Your task to perform on an android device: Go to location settings Image 0: 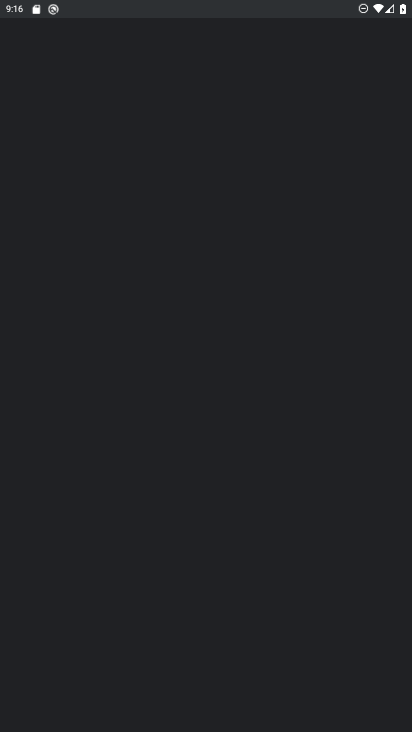
Step 0: click (180, 694)
Your task to perform on an android device: Go to location settings Image 1: 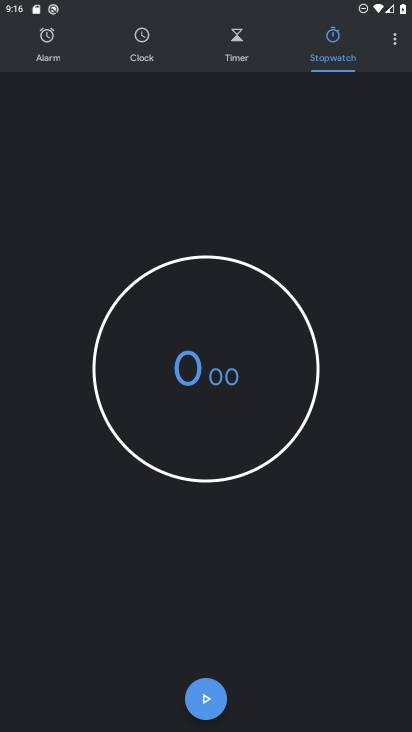
Step 1: press home button
Your task to perform on an android device: Go to location settings Image 2: 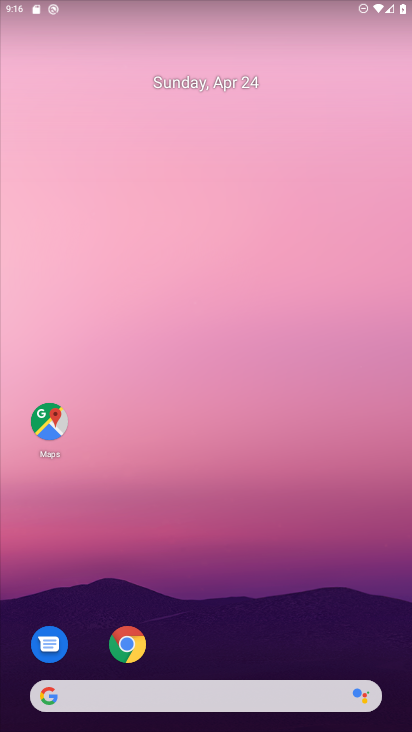
Step 2: drag from (218, 658) to (228, 65)
Your task to perform on an android device: Go to location settings Image 3: 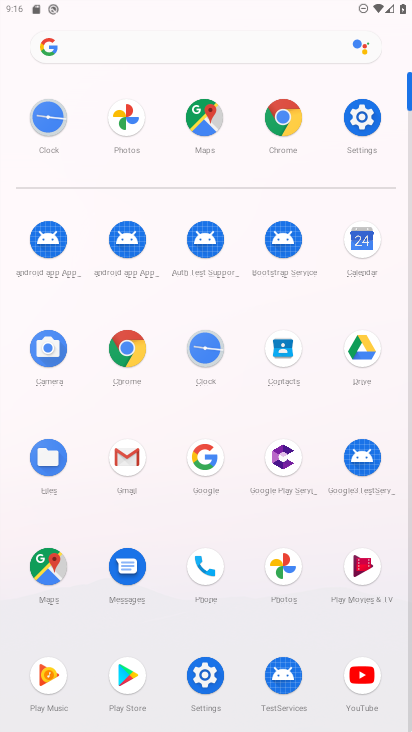
Step 3: click (354, 114)
Your task to perform on an android device: Go to location settings Image 4: 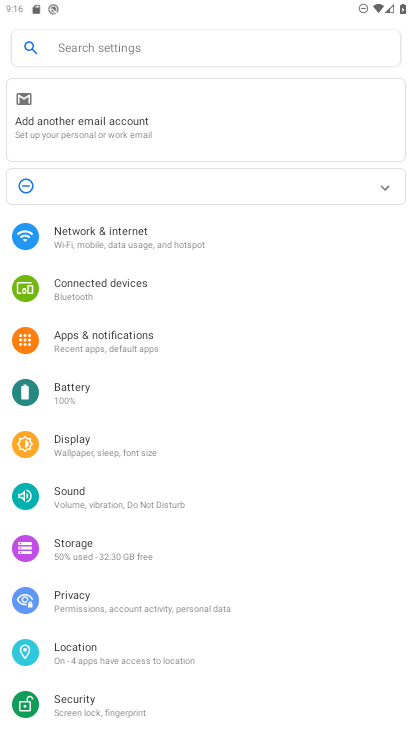
Step 4: click (46, 640)
Your task to perform on an android device: Go to location settings Image 5: 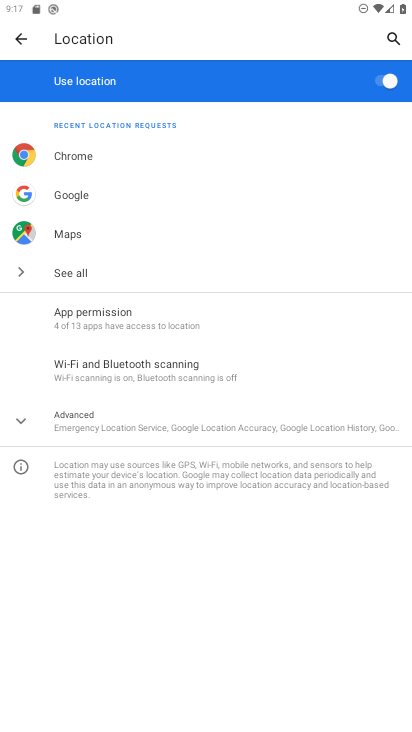
Step 5: task complete